Your task to perform on an android device: turn on improve location accuracy Image 0: 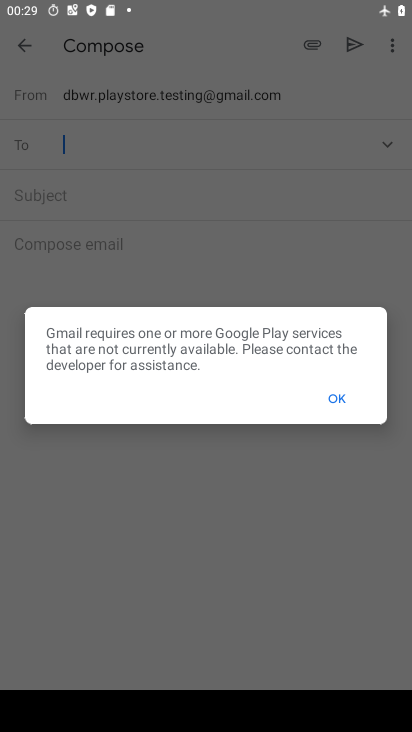
Step 0: press home button
Your task to perform on an android device: turn on improve location accuracy Image 1: 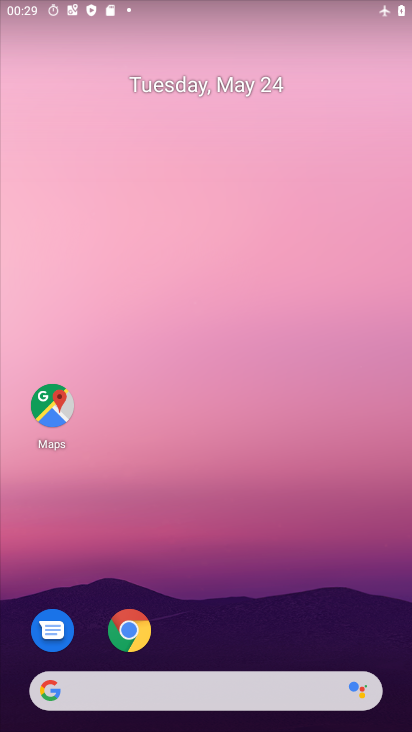
Step 1: drag from (262, 636) to (260, 18)
Your task to perform on an android device: turn on improve location accuracy Image 2: 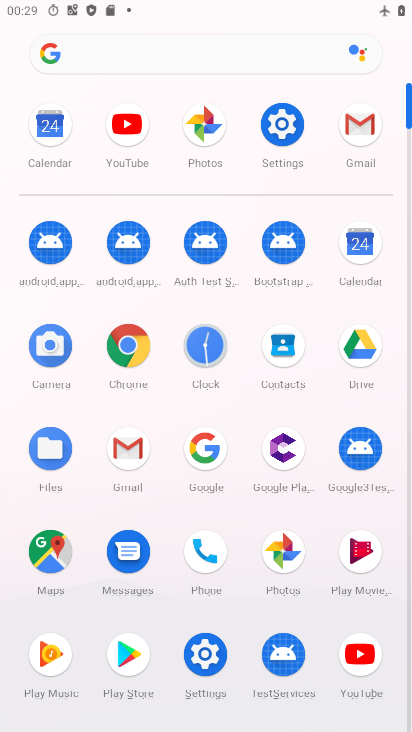
Step 2: click (285, 120)
Your task to perform on an android device: turn on improve location accuracy Image 3: 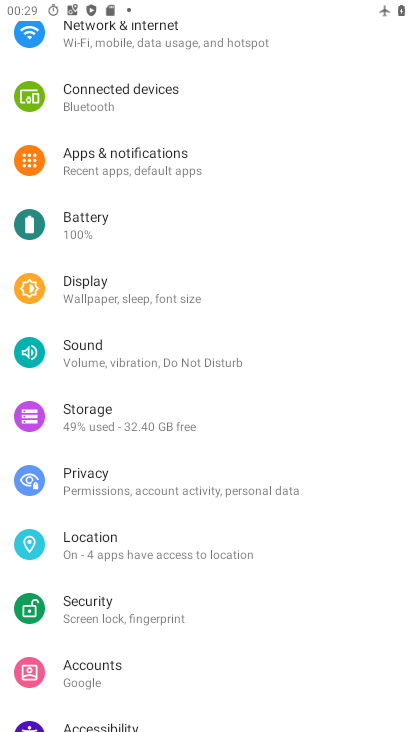
Step 3: click (81, 544)
Your task to perform on an android device: turn on improve location accuracy Image 4: 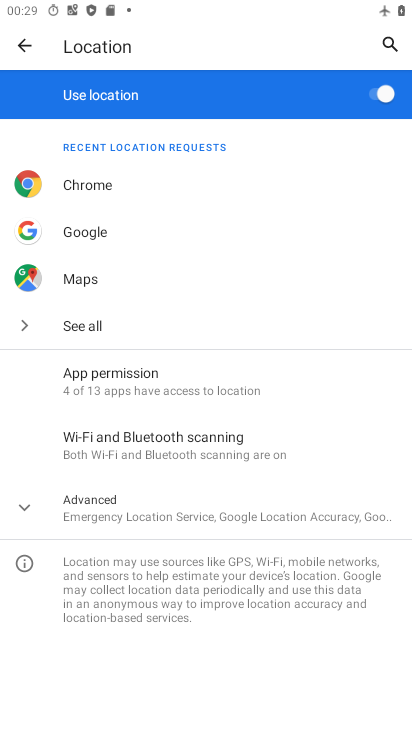
Step 4: click (22, 510)
Your task to perform on an android device: turn on improve location accuracy Image 5: 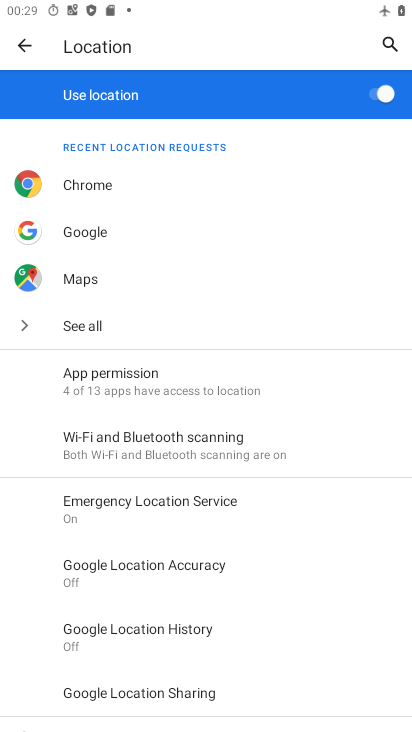
Step 5: click (104, 571)
Your task to perform on an android device: turn on improve location accuracy Image 6: 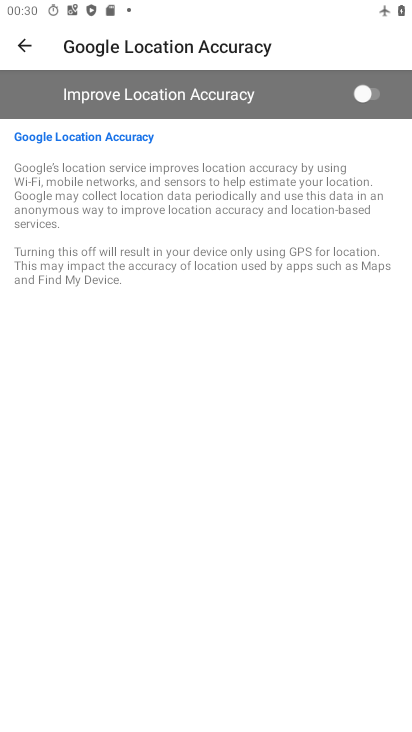
Step 6: click (366, 98)
Your task to perform on an android device: turn on improve location accuracy Image 7: 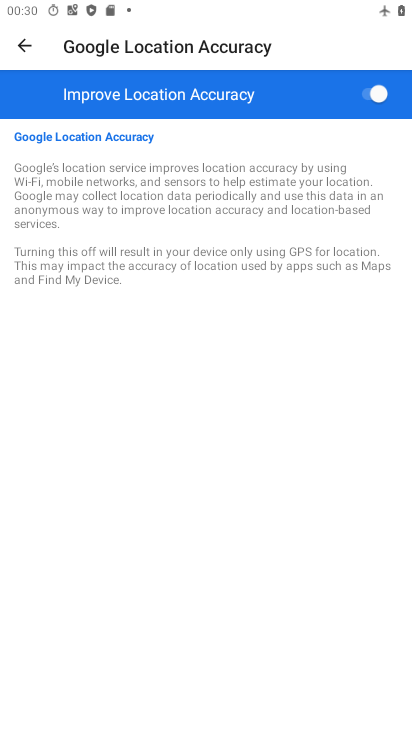
Step 7: task complete